Your task to perform on an android device: Open CNN.com Image 0: 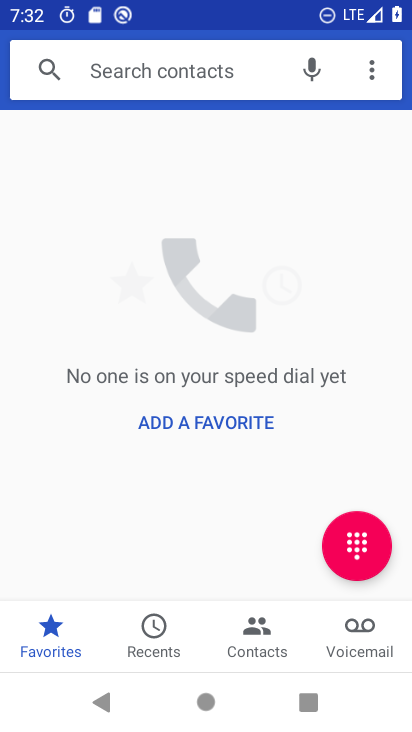
Step 0: press home button
Your task to perform on an android device: Open CNN.com Image 1: 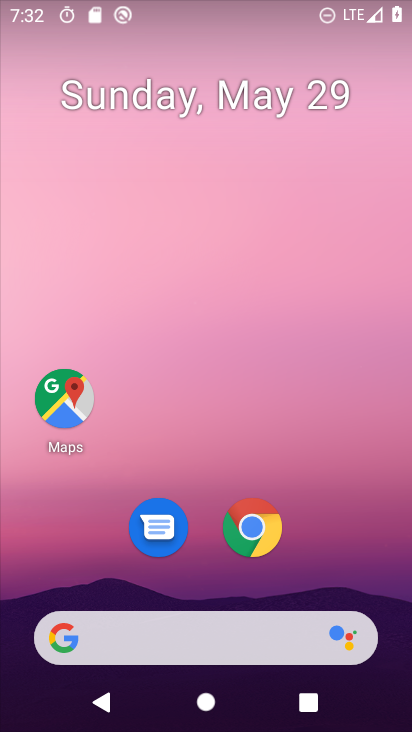
Step 1: drag from (387, 586) to (269, 43)
Your task to perform on an android device: Open CNN.com Image 2: 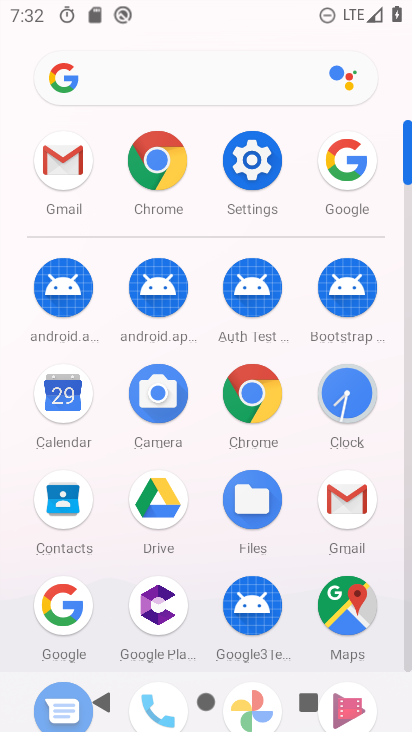
Step 2: click (44, 595)
Your task to perform on an android device: Open CNN.com Image 3: 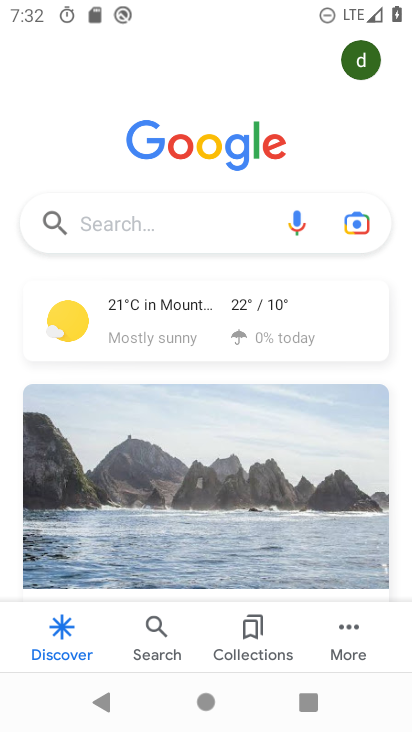
Step 3: click (168, 210)
Your task to perform on an android device: Open CNN.com Image 4: 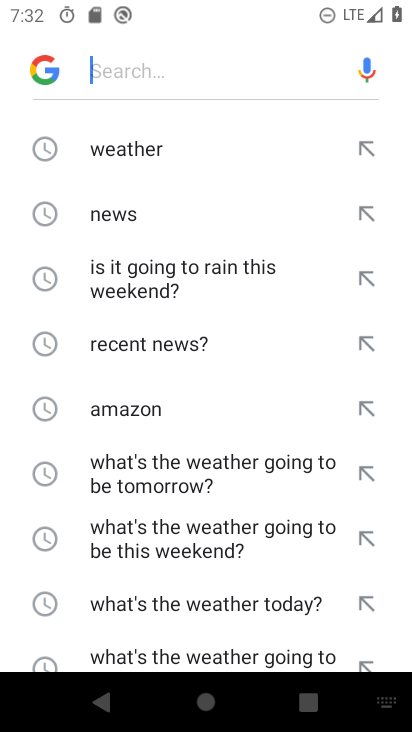
Step 4: drag from (124, 582) to (122, 152)
Your task to perform on an android device: Open CNN.com Image 5: 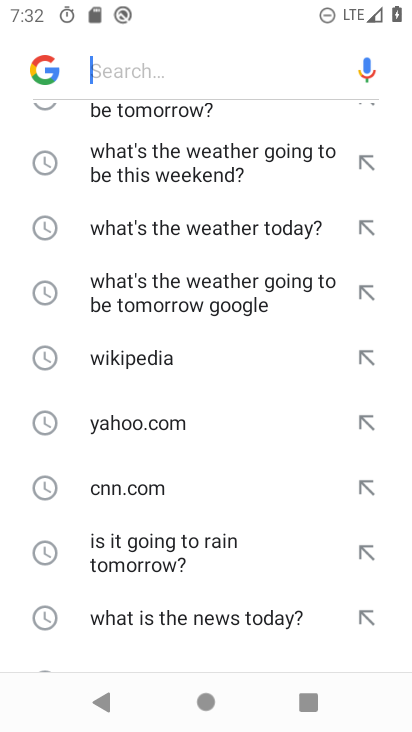
Step 5: click (152, 485)
Your task to perform on an android device: Open CNN.com Image 6: 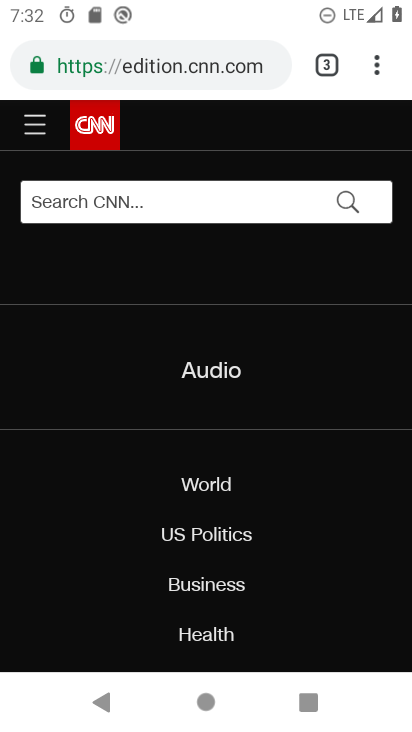
Step 6: task complete